Your task to perform on an android device: turn on sleep mode Image 0: 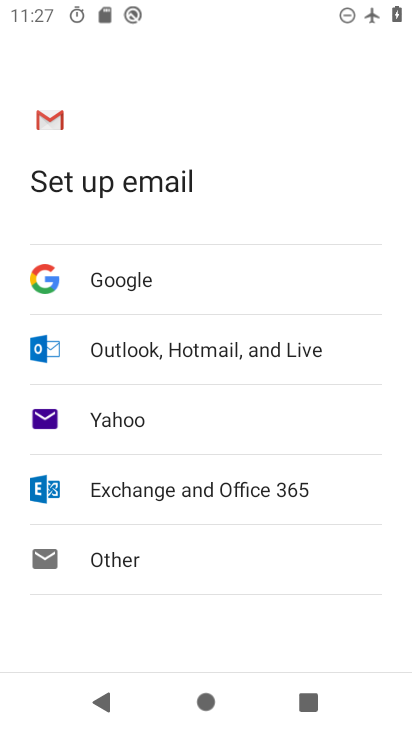
Step 0: press home button
Your task to perform on an android device: turn on sleep mode Image 1: 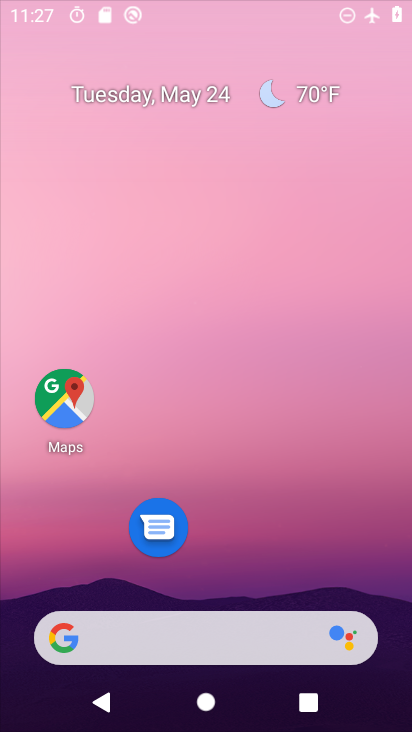
Step 1: drag from (260, 596) to (280, 89)
Your task to perform on an android device: turn on sleep mode Image 2: 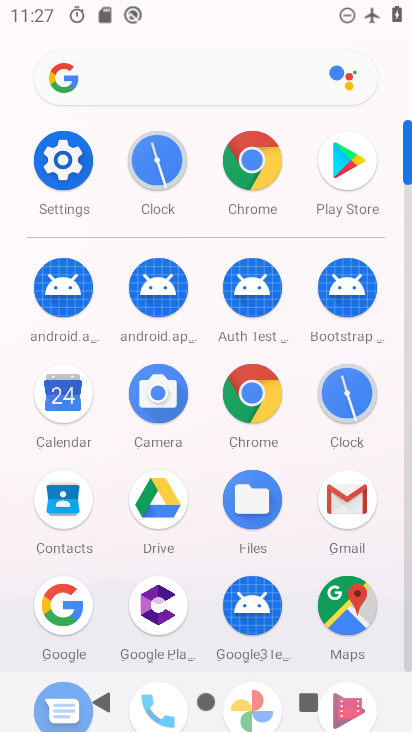
Step 2: click (69, 217)
Your task to perform on an android device: turn on sleep mode Image 3: 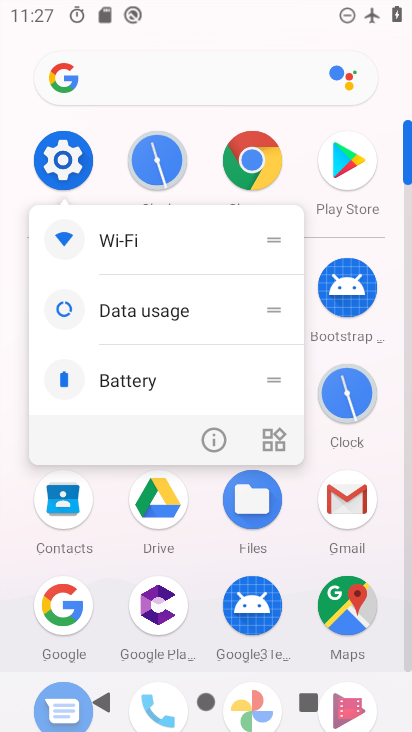
Step 3: click (66, 170)
Your task to perform on an android device: turn on sleep mode Image 4: 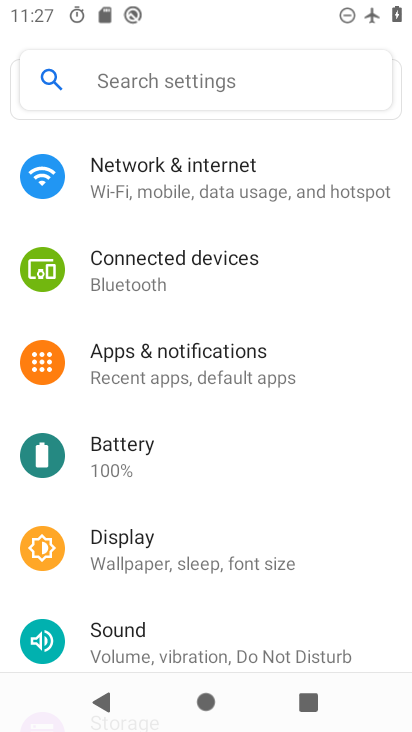
Step 4: drag from (232, 553) to (255, 164)
Your task to perform on an android device: turn on sleep mode Image 5: 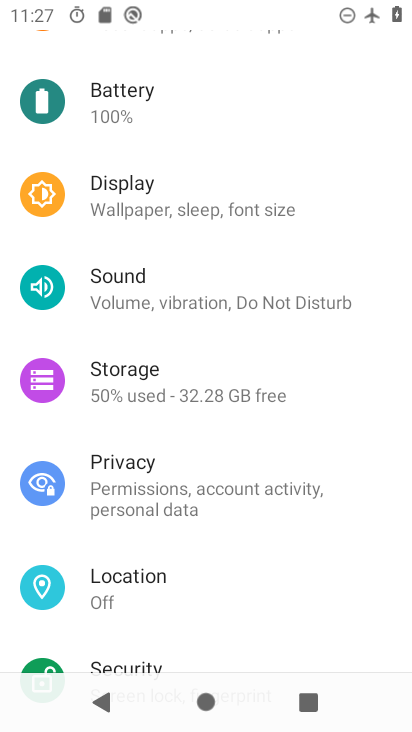
Step 5: click (171, 218)
Your task to perform on an android device: turn on sleep mode Image 6: 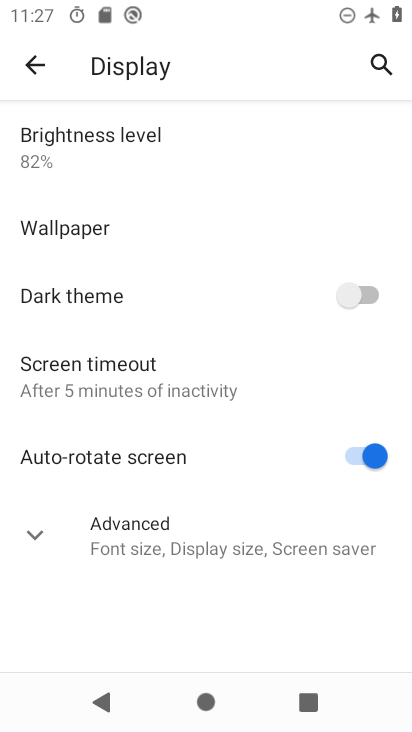
Step 6: click (136, 382)
Your task to perform on an android device: turn on sleep mode Image 7: 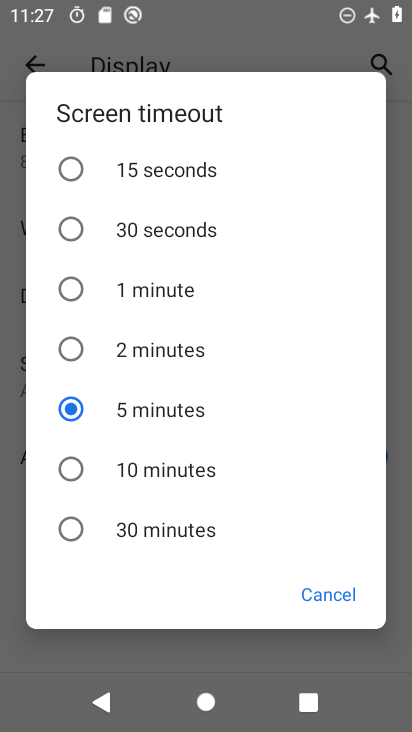
Step 7: task complete